Your task to perform on an android device: What's the latest news in space technology? Image 0: 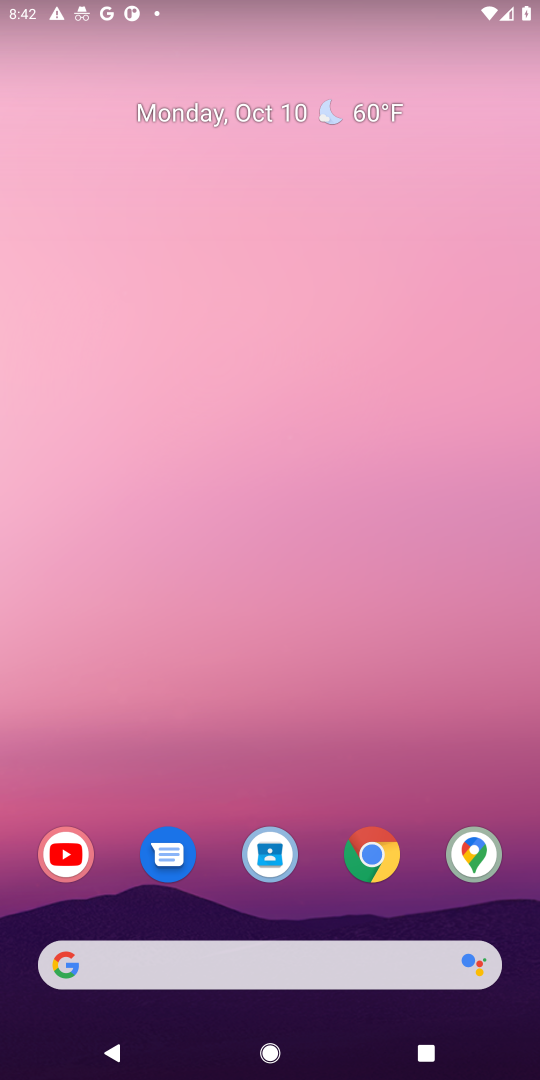
Step 0: click (368, 870)
Your task to perform on an android device: What's the latest news in space technology? Image 1: 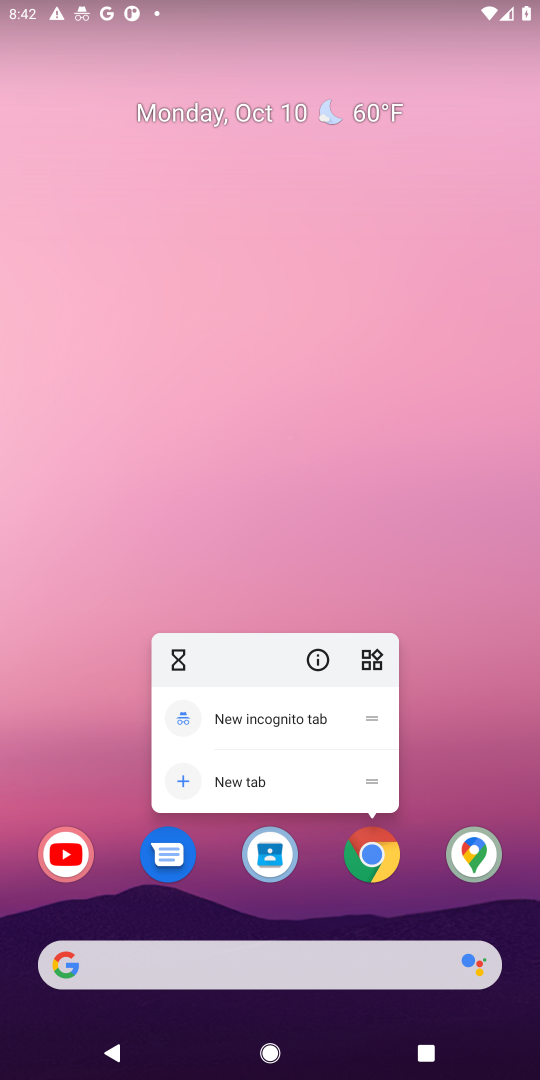
Step 1: click (370, 869)
Your task to perform on an android device: What's the latest news in space technology? Image 2: 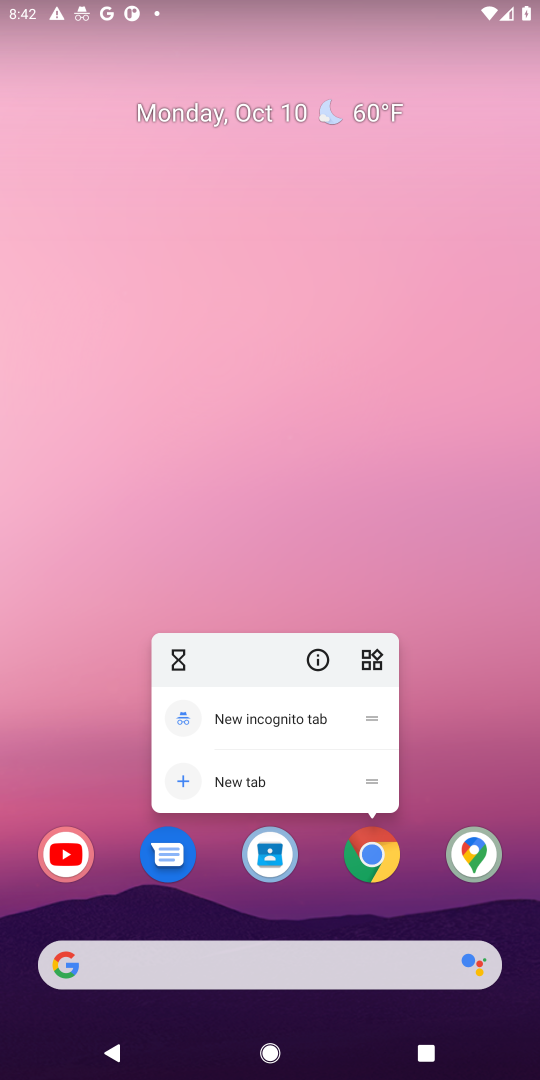
Step 2: click (366, 862)
Your task to perform on an android device: What's the latest news in space technology? Image 3: 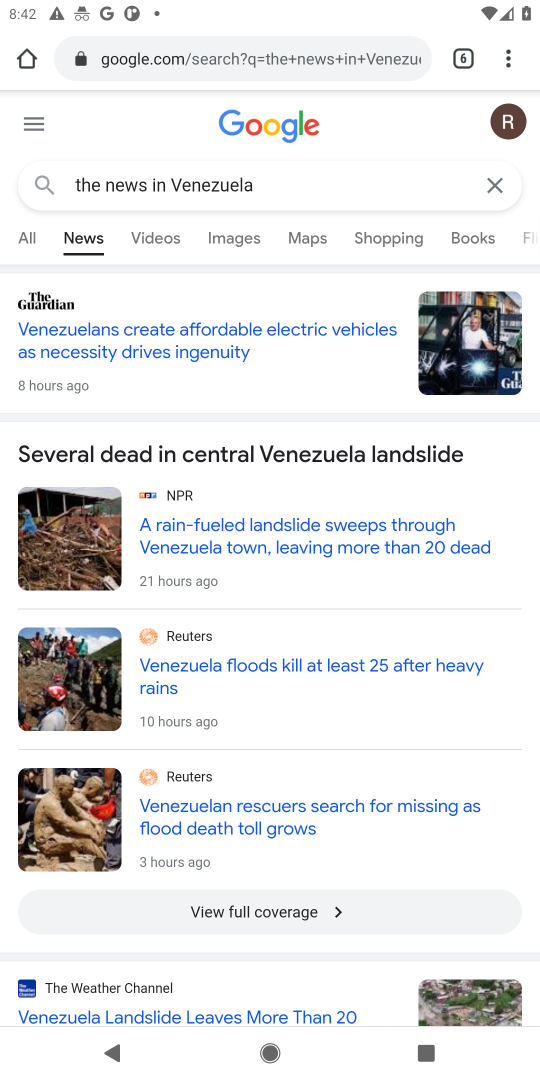
Step 3: click (304, 56)
Your task to perform on an android device: What's the latest news in space technology? Image 4: 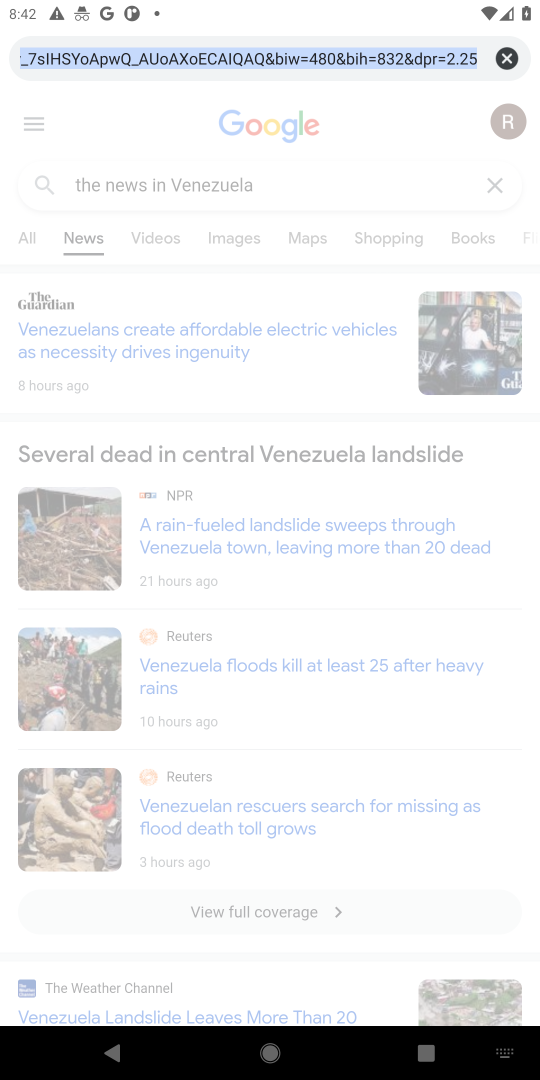
Step 4: click (504, 53)
Your task to perform on an android device: What's the latest news in space technology? Image 5: 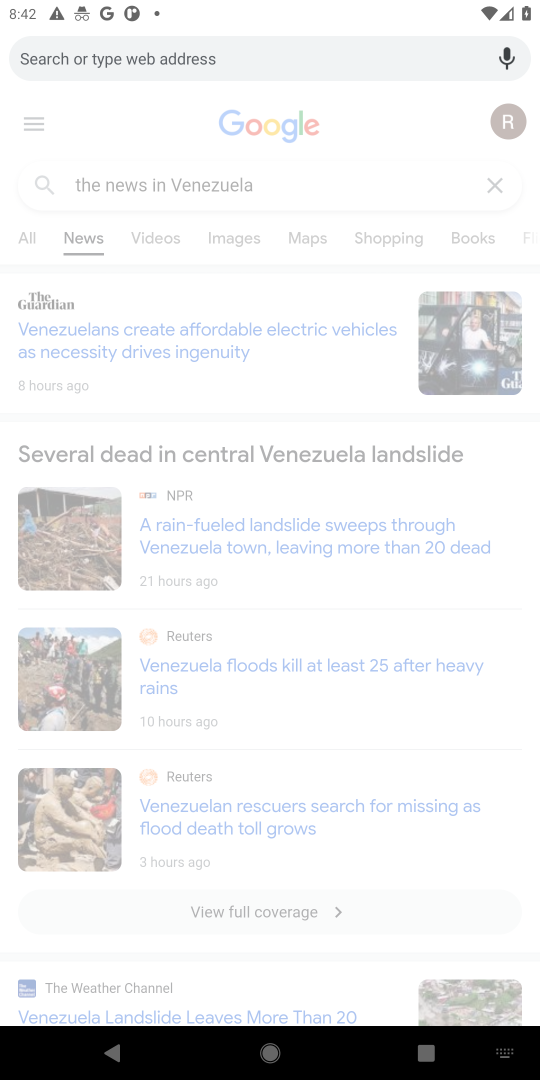
Step 5: type "latest news in space technology"
Your task to perform on an android device: What's the latest news in space technology? Image 6: 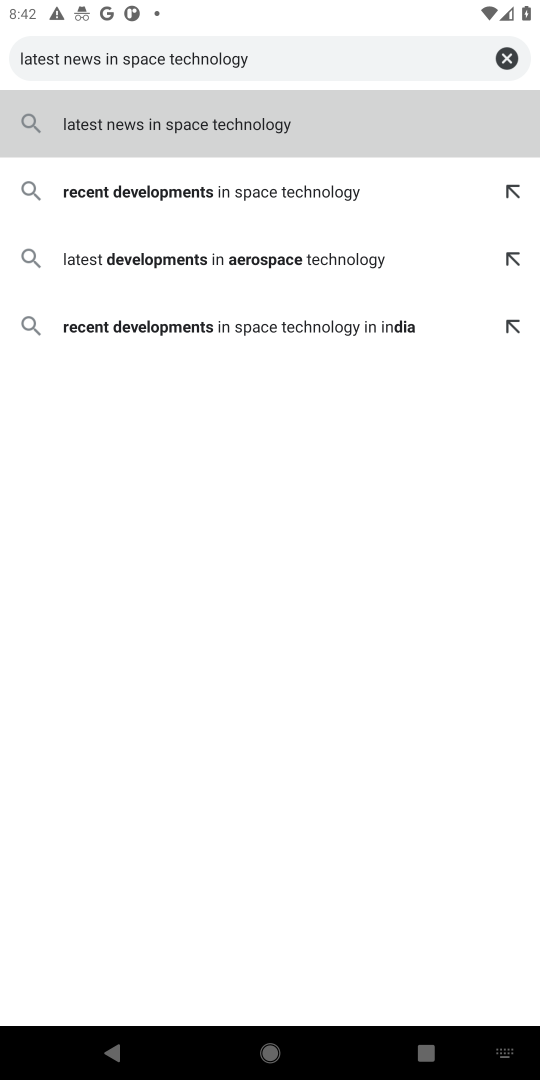
Step 6: click (230, 124)
Your task to perform on an android device: What's the latest news in space technology? Image 7: 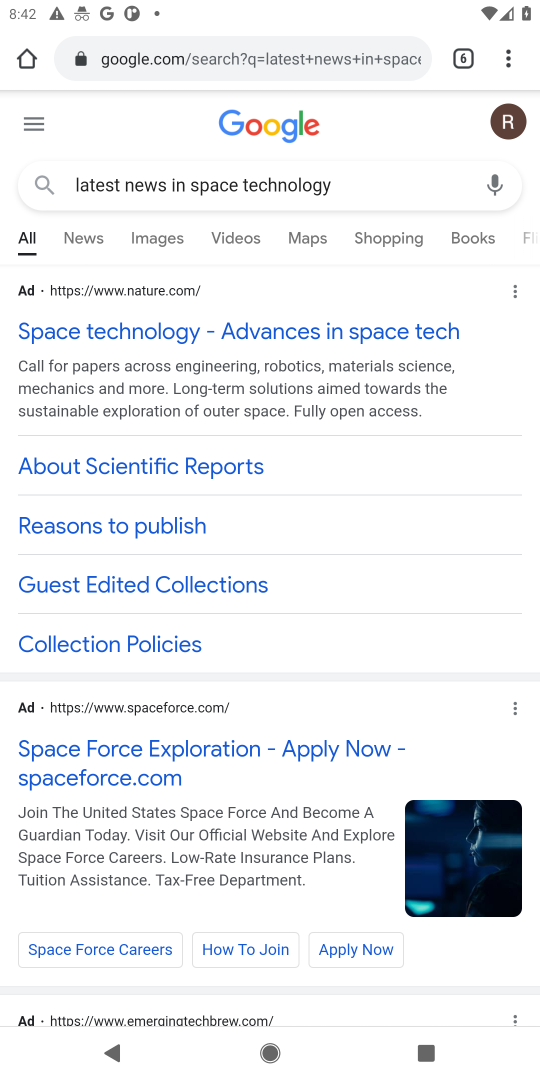
Step 7: click (81, 241)
Your task to perform on an android device: What's the latest news in space technology? Image 8: 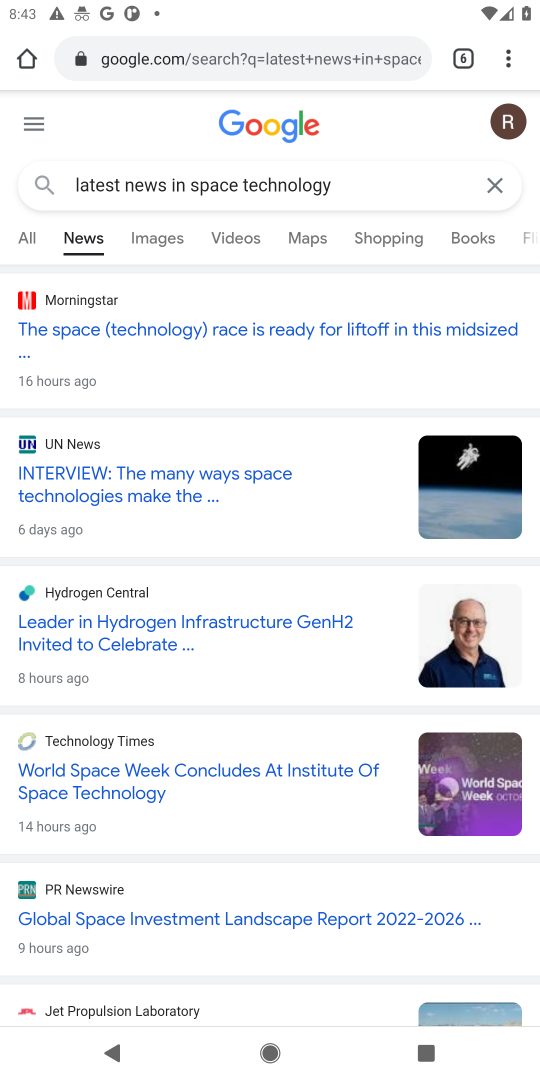
Step 8: task complete